Your task to perform on an android device: Open network settings Image 0: 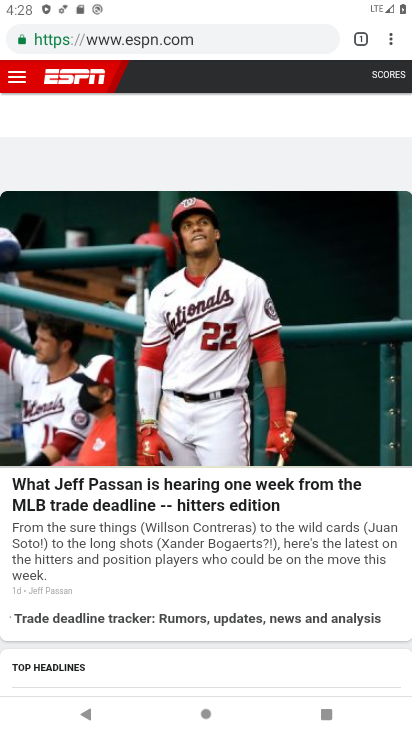
Step 0: press back button
Your task to perform on an android device: Open network settings Image 1: 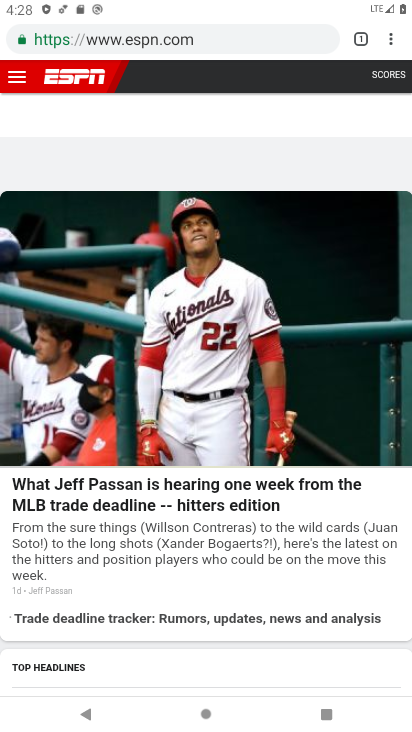
Step 1: press back button
Your task to perform on an android device: Open network settings Image 2: 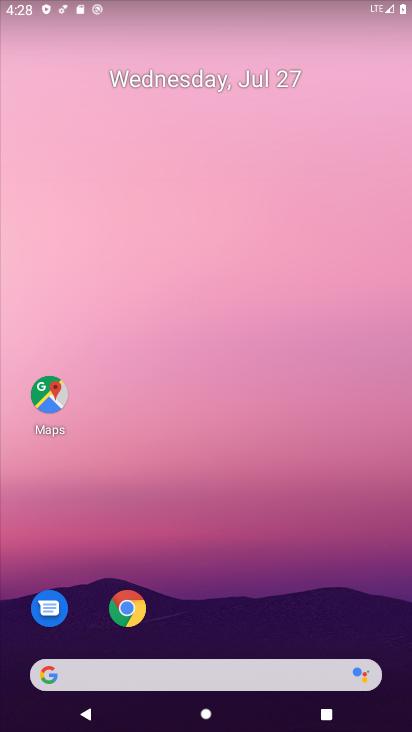
Step 2: drag from (243, 633) to (195, 231)
Your task to perform on an android device: Open network settings Image 3: 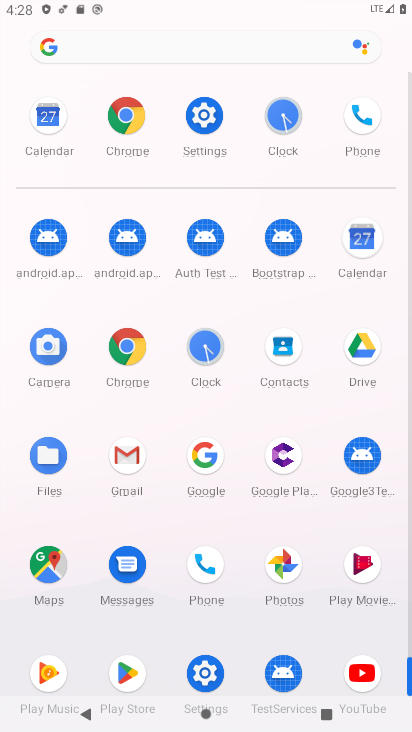
Step 3: click (215, 114)
Your task to perform on an android device: Open network settings Image 4: 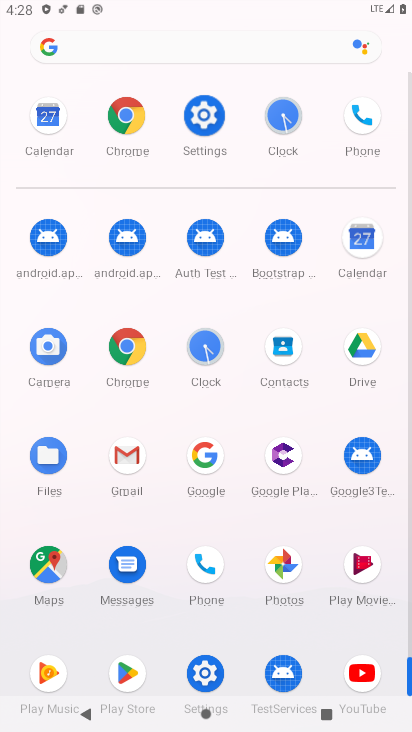
Step 4: click (215, 114)
Your task to perform on an android device: Open network settings Image 5: 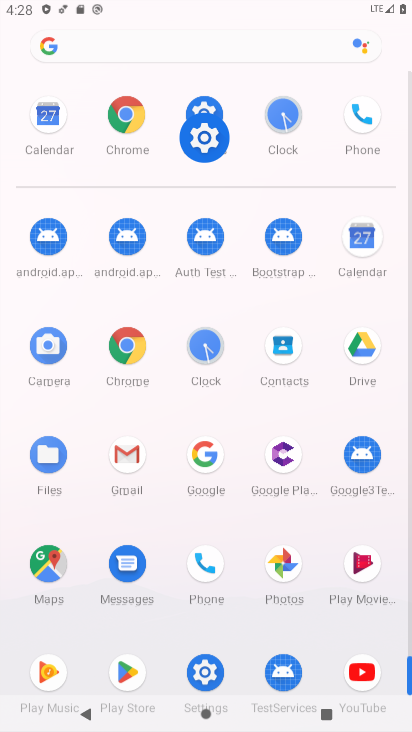
Step 5: click (216, 113)
Your task to perform on an android device: Open network settings Image 6: 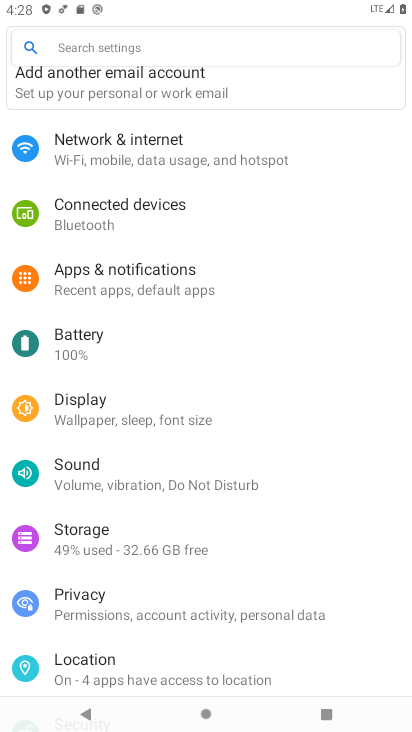
Step 6: drag from (182, 512) to (136, 128)
Your task to perform on an android device: Open network settings Image 7: 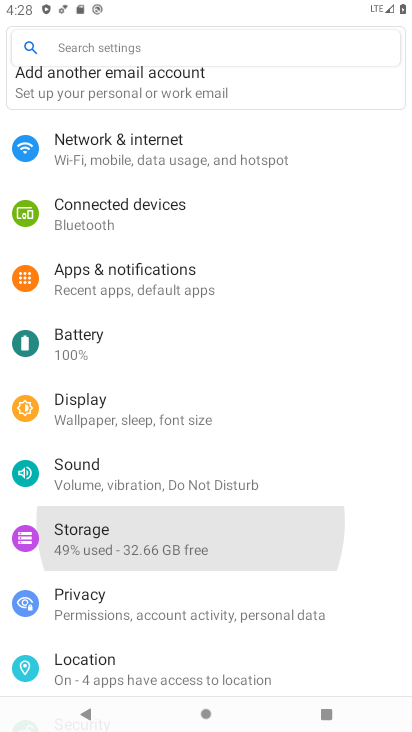
Step 7: drag from (136, 478) to (115, 231)
Your task to perform on an android device: Open network settings Image 8: 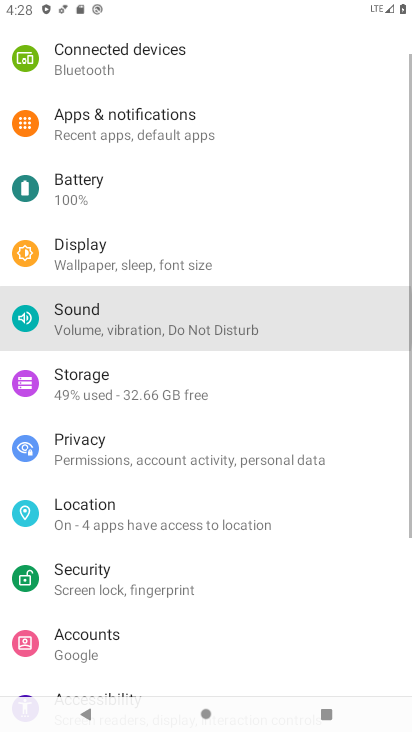
Step 8: drag from (119, 434) to (112, 294)
Your task to perform on an android device: Open network settings Image 9: 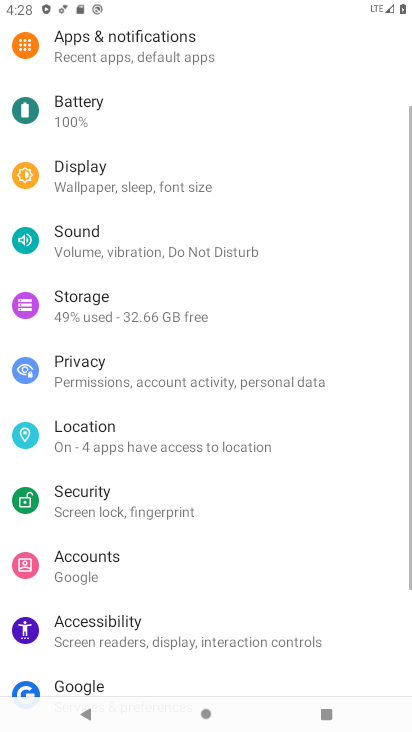
Step 9: drag from (124, 464) to (114, 283)
Your task to perform on an android device: Open network settings Image 10: 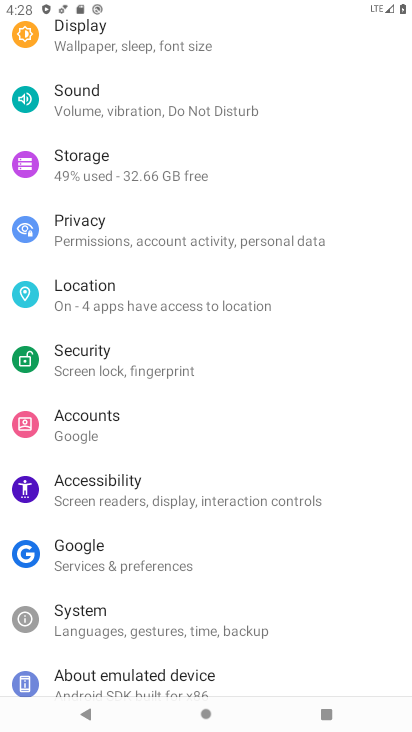
Step 10: drag from (128, 348) to (138, 145)
Your task to perform on an android device: Open network settings Image 11: 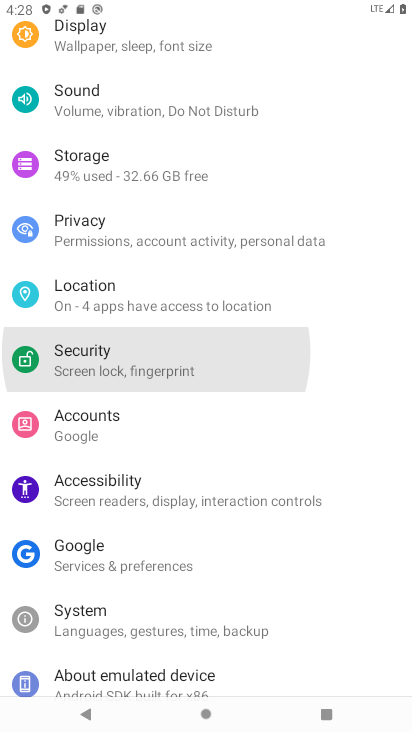
Step 11: drag from (154, 415) to (154, 99)
Your task to perform on an android device: Open network settings Image 12: 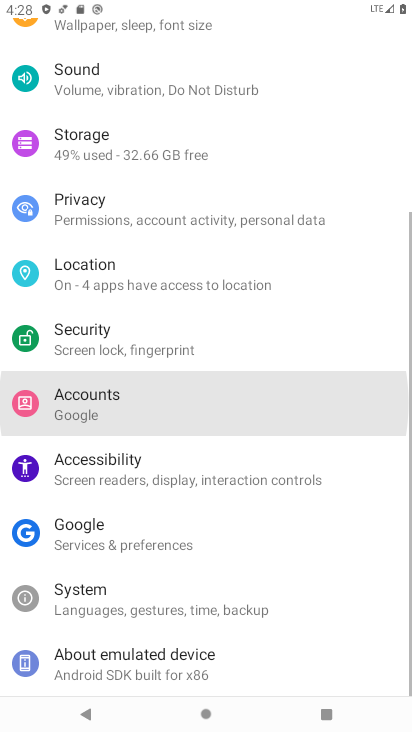
Step 12: drag from (193, 504) to (185, 175)
Your task to perform on an android device: Open network settings Image 13: 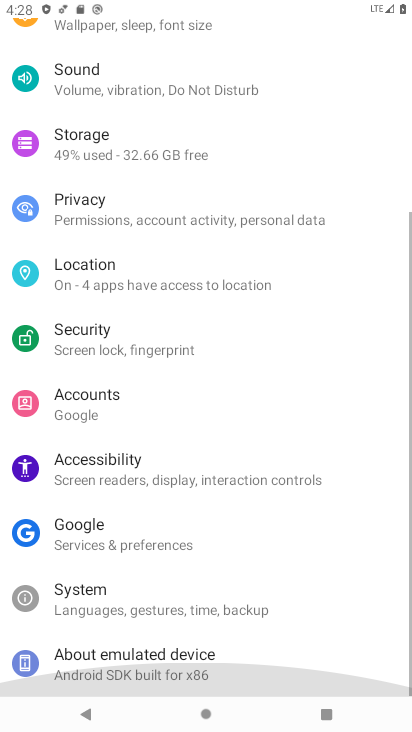
Step 13: drag from (185, 472) to (169, 190)
Your task to perform on an android device: Open network settings Image 14: 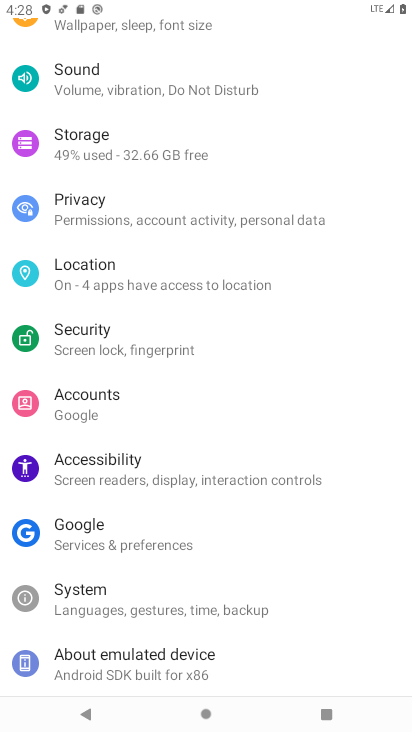
Step 14: drag from (121, 205) to (186, 473)
Your task to perform on an android device: Open network settings Image 15: 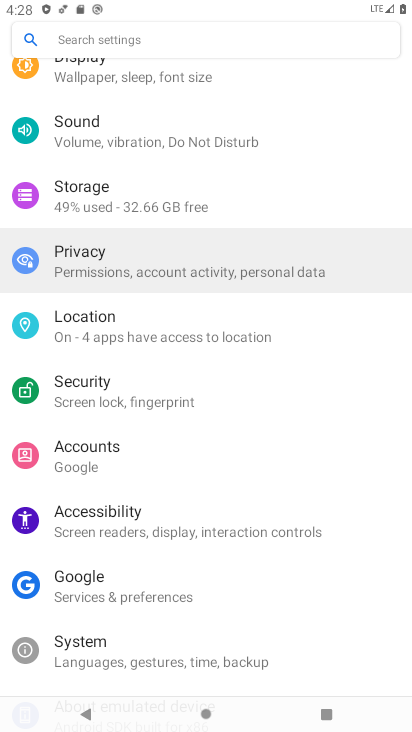
Step 15: drag from (152, 212) to (177, 453)
Your task to perform on an android device: Open network settings Image 16: 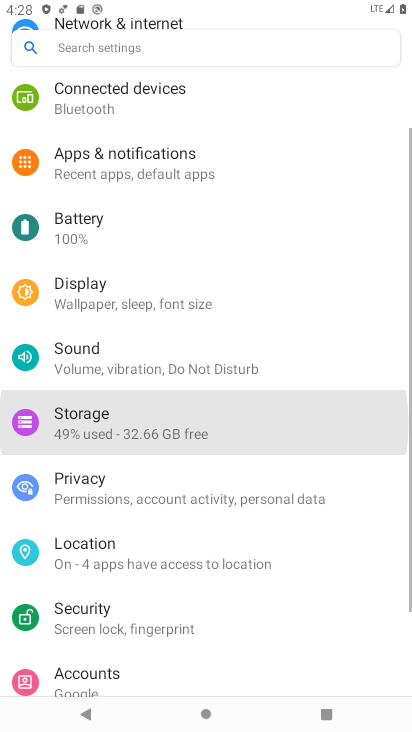
Step 16: drag from (141, 245) to (179, 556)
Your task to perform on an android device: Open network settings Image 17: 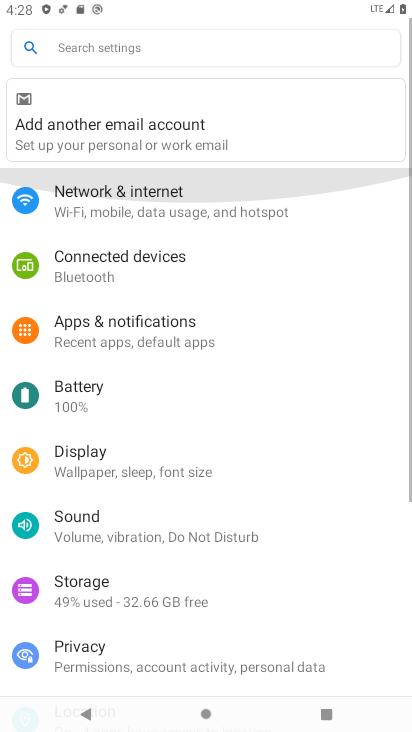
Step 17: drag from (139, 219) to (223, 577)
Your task to perform on an android device: Open network settings Image 18: 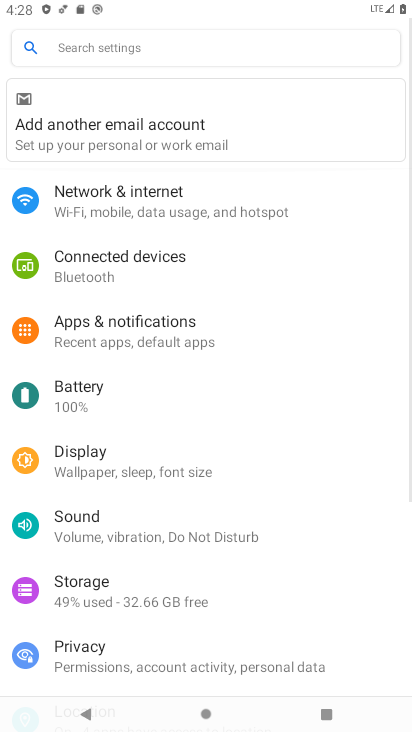
Step 18: drag from (196, 267) to (224, 470)
Your task to perform on an android device: Open network settings Image 19: 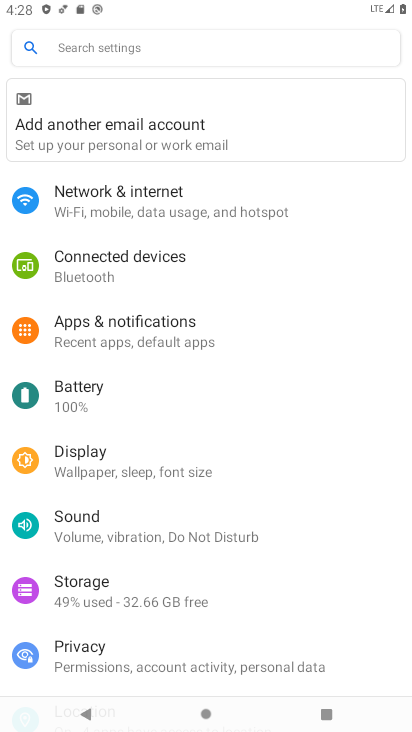
Step 19: click (145, 218)
Your task to perform on an android device: Open network settings Image 20: 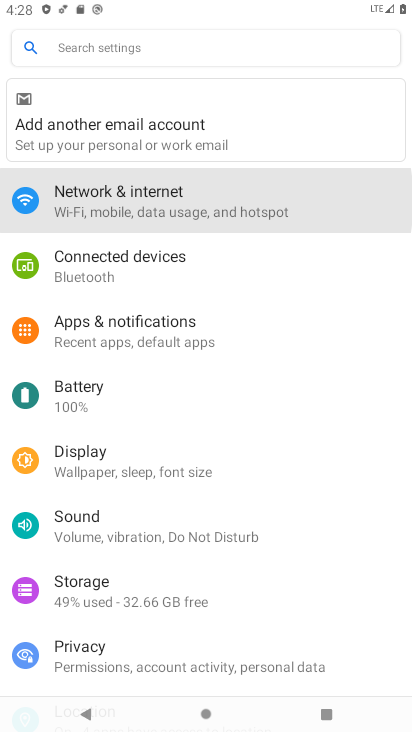
Step 20: click (145, 205)
Your task to perform on an android device: Open network settings Image 21: 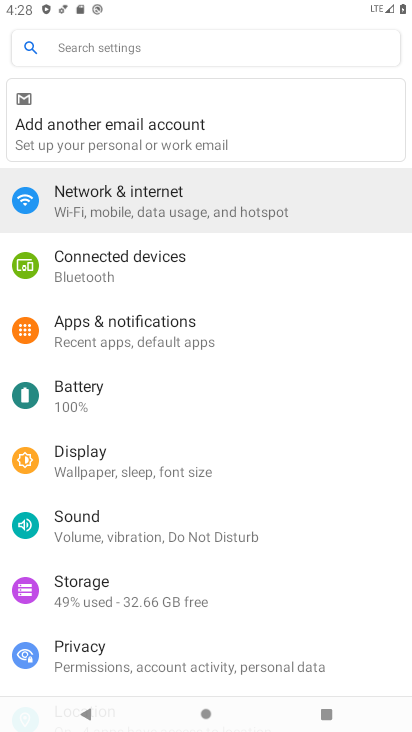
Step 21: click (147, 201)
Your task to perform on an android device: Open network settings Image 22: 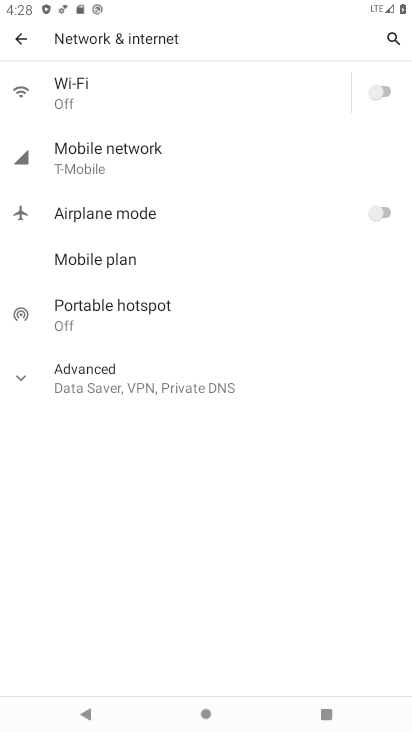
Step 22: click (375, 92)
Your task to perform on an android device: Open network settings Image 23: 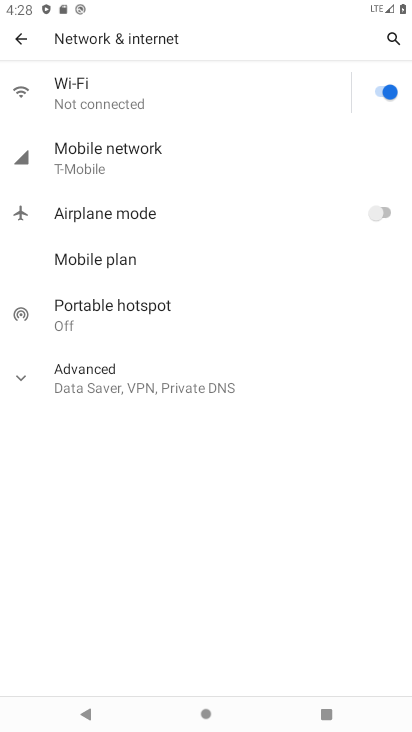
Step 23: task complete